Your task to perform on an android device: Show me popular videos on Youtube Image 0: 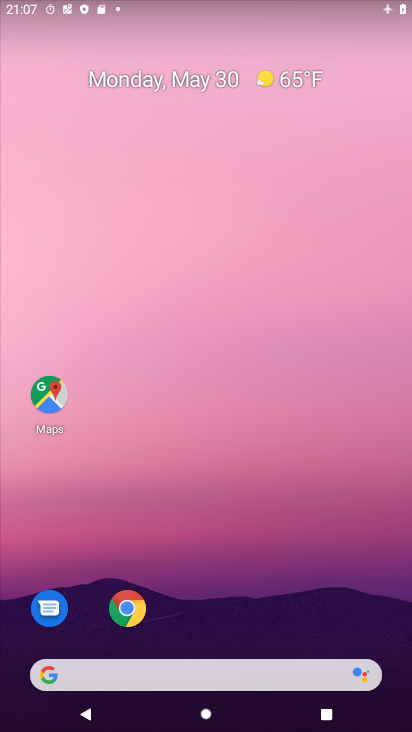
Step 0: drag from (210, 635) to (233, 271)
Your task to perform on an android device: Show me popular videos on Youtube Image 1: 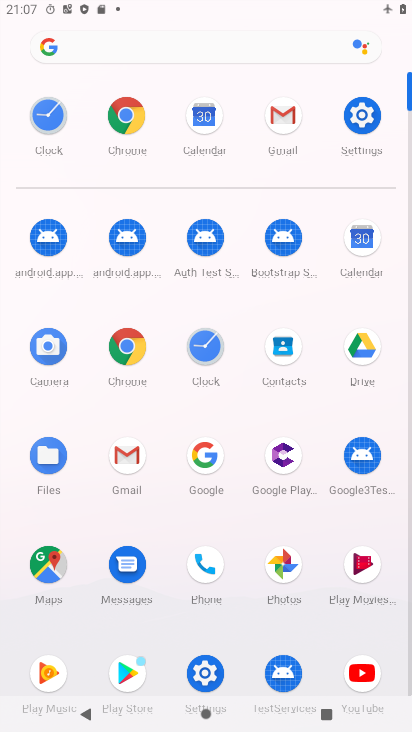
Step 1: drag from (261, 592) to (263, 311)
Your task to perform on an android device: Show me popular videos on Youtube Image 2: 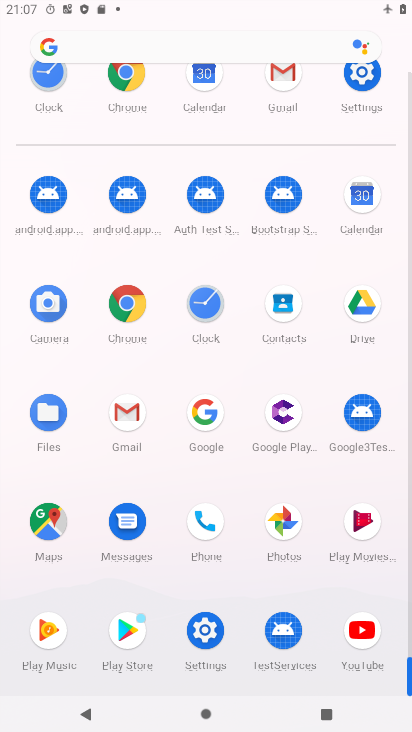
Step 2: click (353, 590)
Your task to perform on an android device: Show me popular videos on Youtube Image 3: 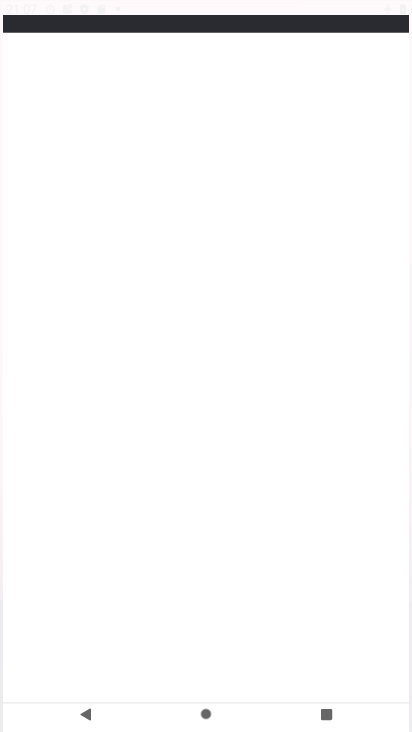
Step 3: click (363, 627)
Your task to perform on an android device: Show me popular videos on Youtube Image 4: 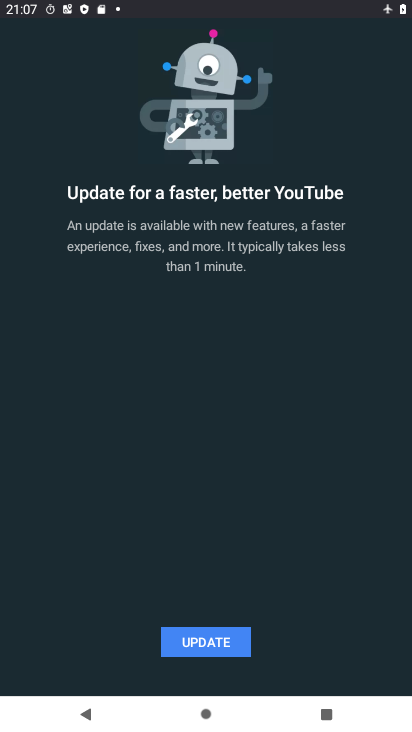
Step 4: click (192, 648)
Your task to perform on an android device: Show me popular videos on Youtube Image 5: 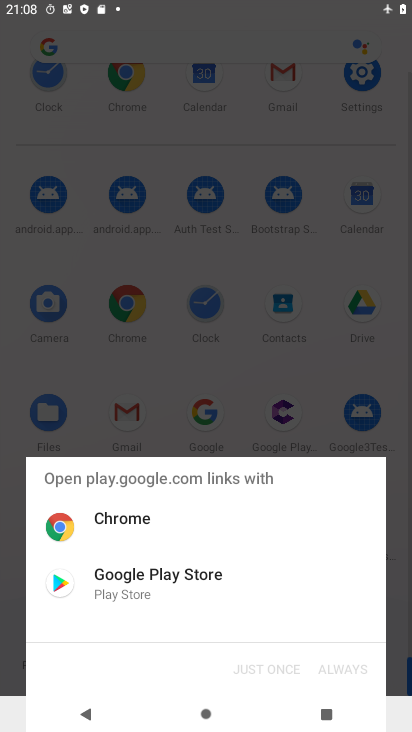
Step 5: drag from (190, 605) to (239, 605)
Your task to perform on an android device: Show me popular videos on Youtube Image 6: 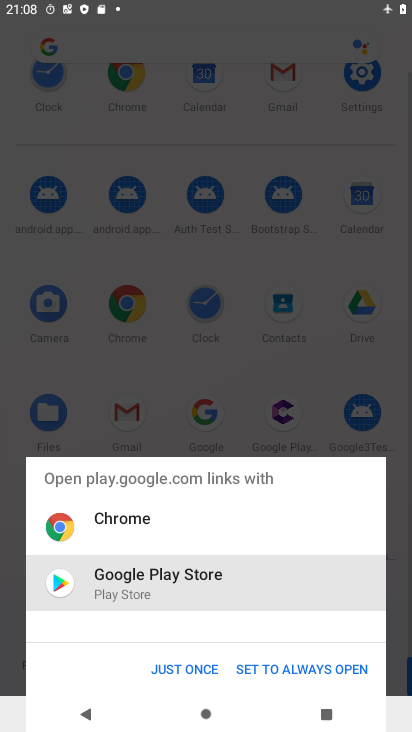
Step 6: click (202, 662)
Your task to perform on an android device: Show me popular videos on Youtube Image 7: 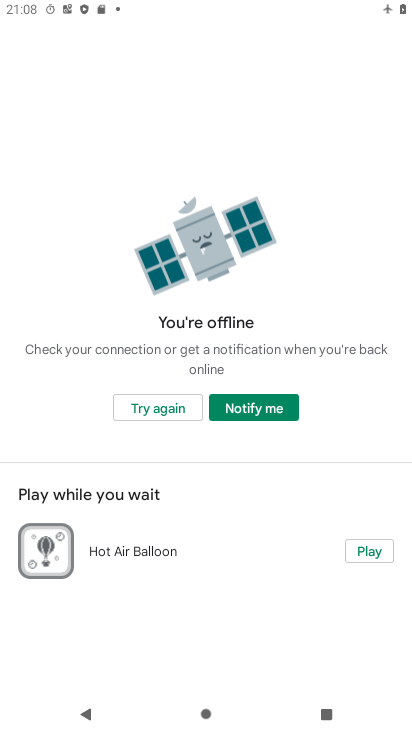
Step 7: task complete